Your task to perform on an android device: Open the calendar and show me this week's events? Image 0: 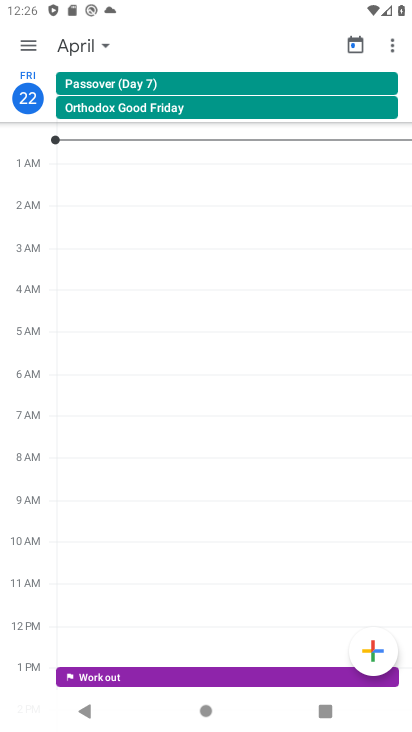
Step 0: press home button
Your task to perform on an android device: Open the calendar and show me this week's events? Image 1: 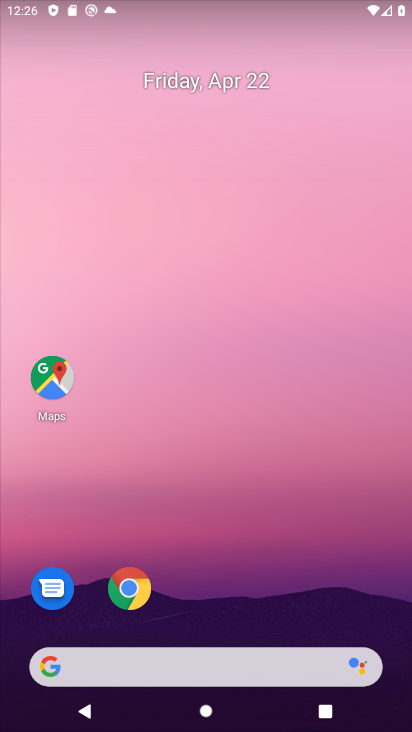
Step 1: drag from (267, 656) to (277, 133)
Your task to perform on an android device: Open the calendar and show me this week's events? Image 2: 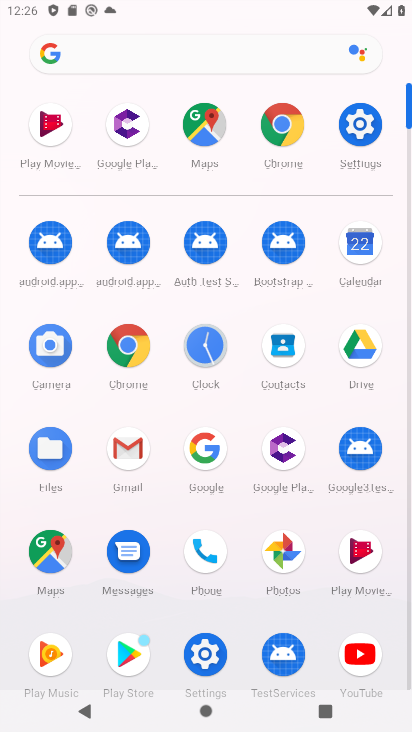
Step 2: click (357, 241)
Your task to perform on an android device: Open the calendar and show me this week's events? Image 3: 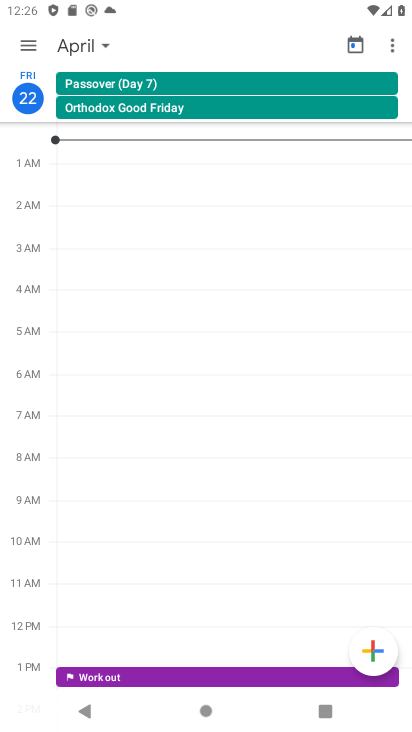
Step 3: click (23, 59)
Your task to perform on an android device: Open the calendar and show me this week's events? Image 4: 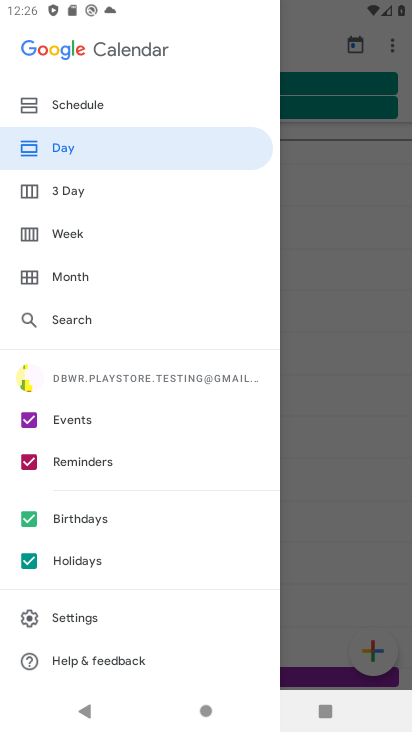
Step 4: click (81, 233)
Your task to perform on an android device: Open the calendar and show me this week's events? Image 5: 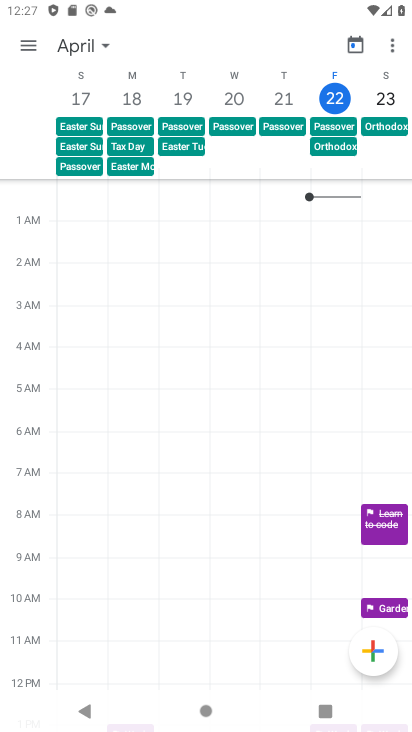
Step 5: task complete